Your task to perform on an android device: uninstall "Microsoft Outlook" Image 0: 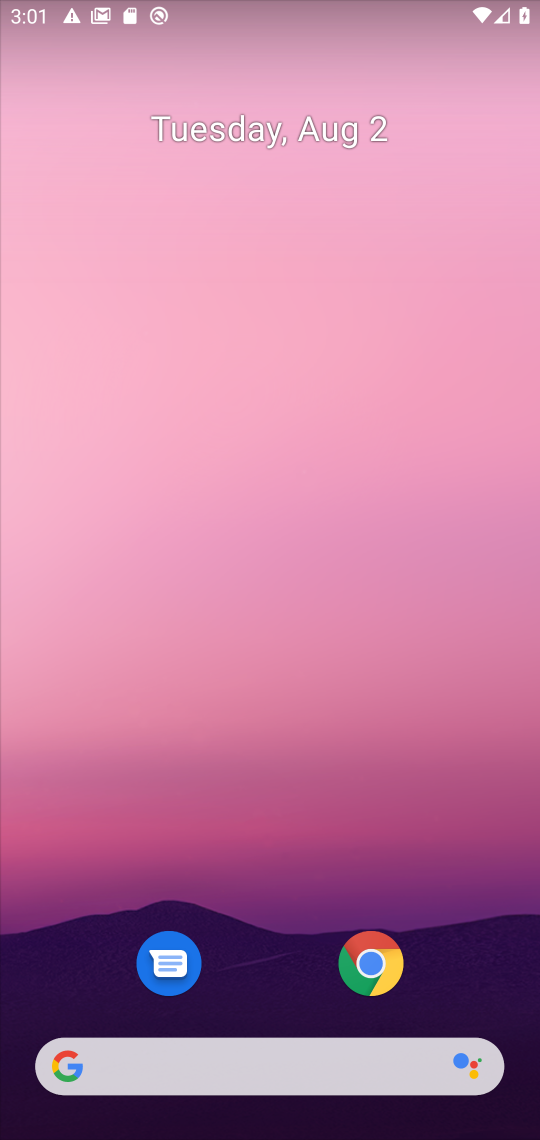
Step 0: drag from (226, 938) to (411, 51)
Your task to perform on an android device: uninstall "Microsoft Outlook" Image 1: 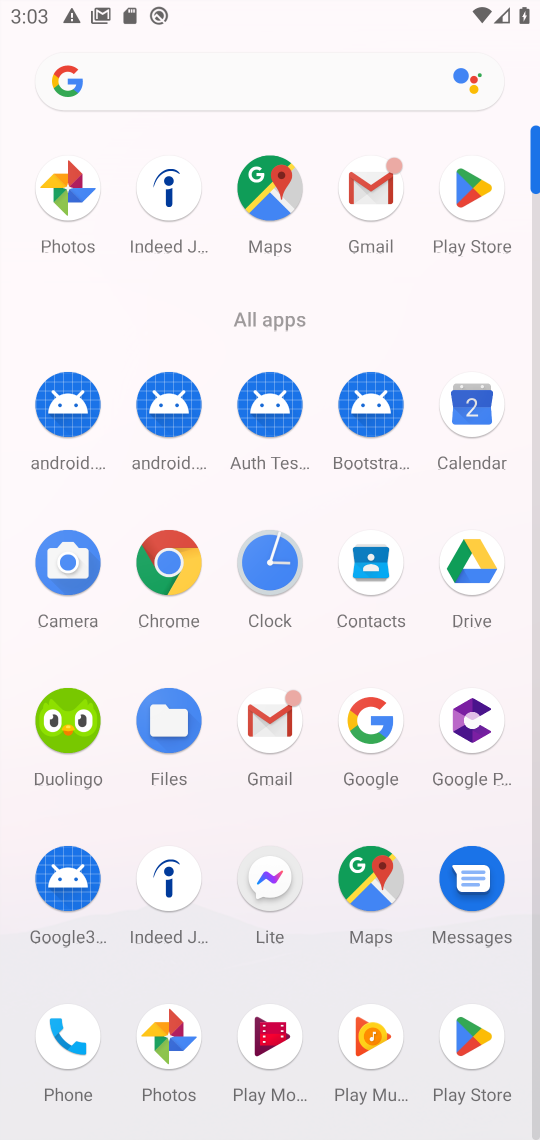
Step 1: click (459, 183)
Your task to perform on an android device: uninstall "Microsoft Outlook" Image 2: 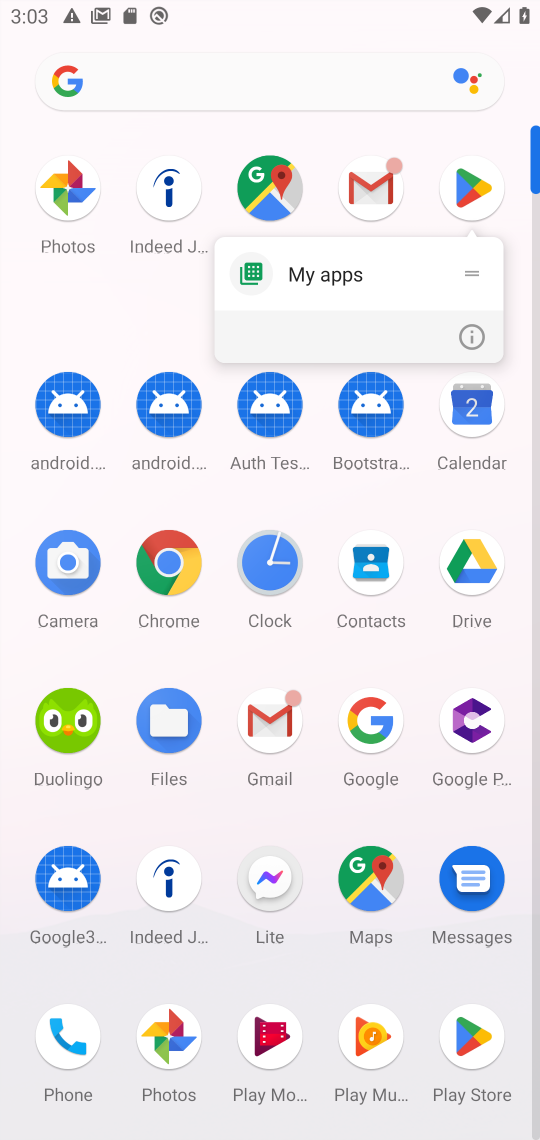
Step 2: click (460, 194)
Your task to perform on an android device: uninstall "Microsoft Outlook" Image 3: 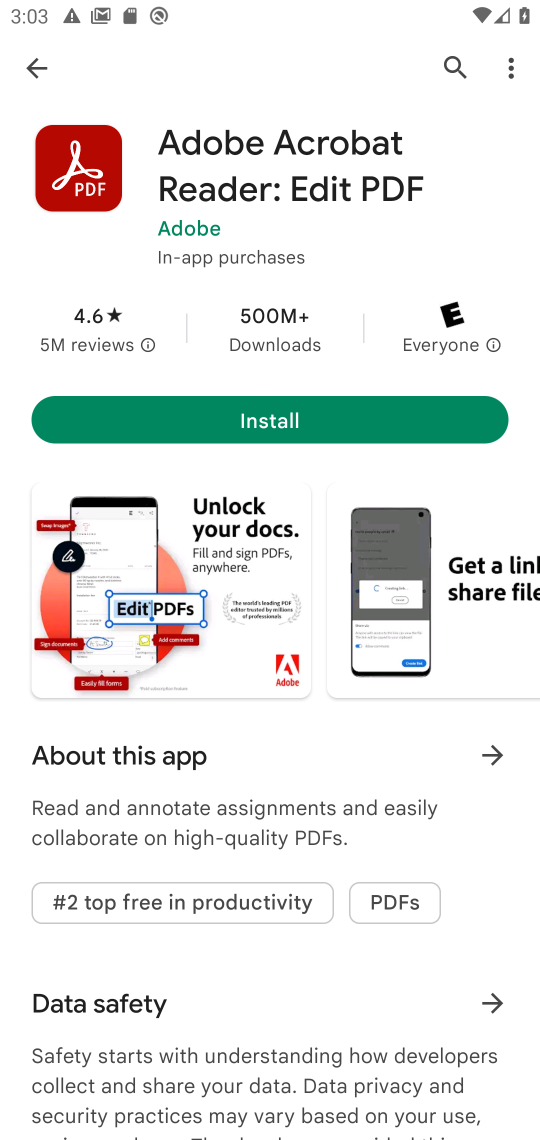
Step 3: click (444, 70)
Your task to perform on an android device: uninstall "Microsoft Outlook" Image 4: 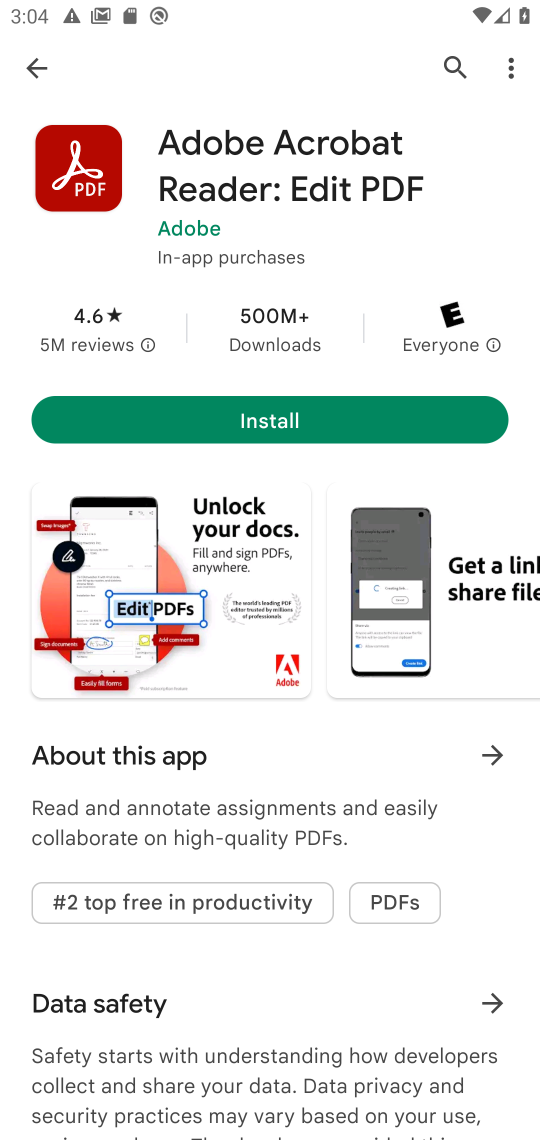
Step 4: type "Microsoft Outlook"
Your task to perform on an android device: uninstall "Microsoft Outlook" Image 5: 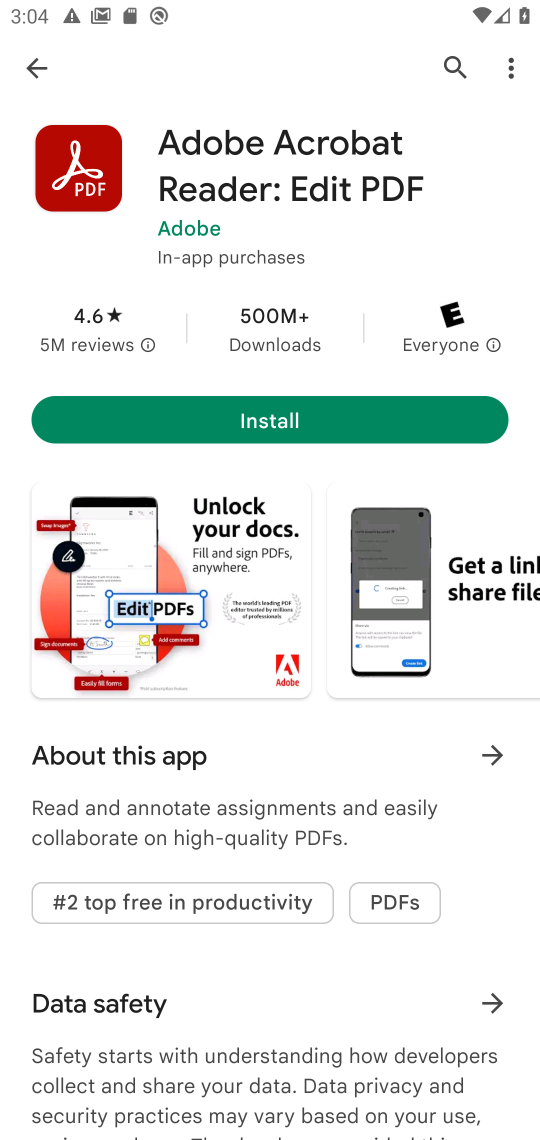
Step 5: click (448, 60)
Your task to perform on an android device: uninstall "Microsoft Outlook" Image 6: 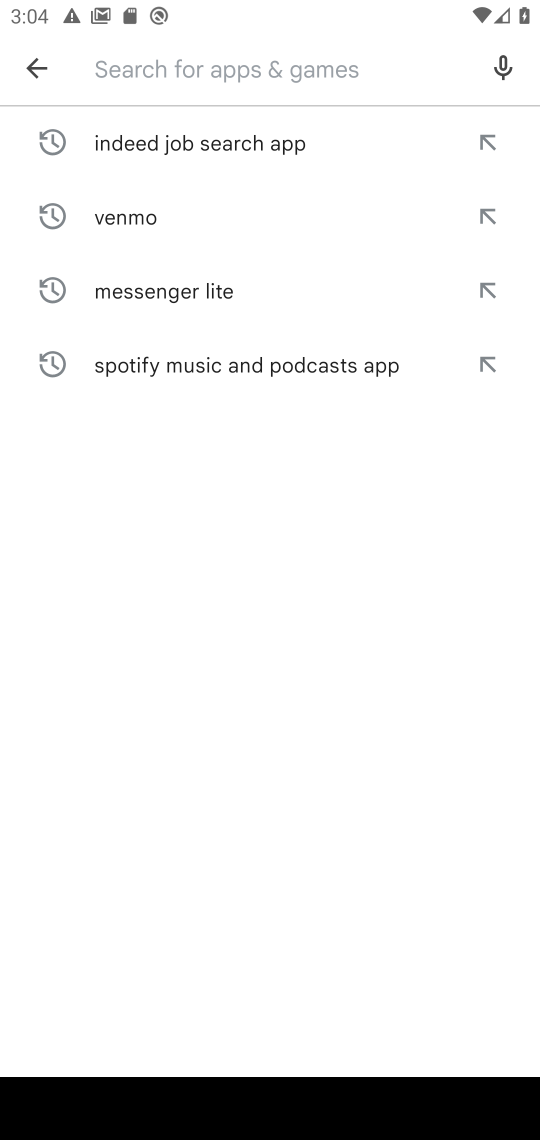
Step 6: type "Microsoft Outlook"
Your task to perform on an android device: uninstall "Microsoft Outlook" Image 7: 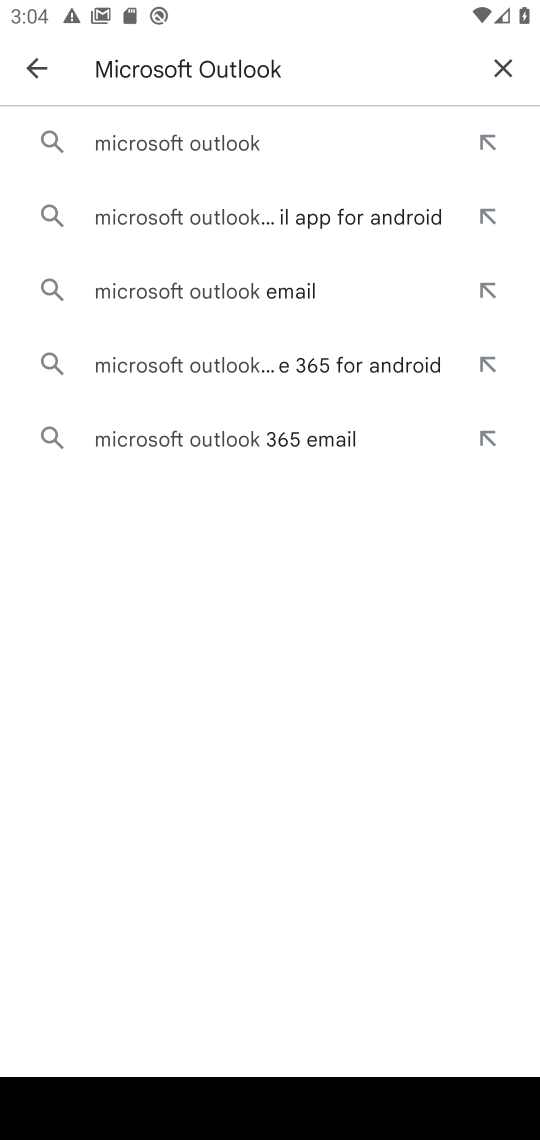
Step 7: click (253, 134)
Your task to perform on an android device: uninstall "Microsoft Outlook" Image 8: 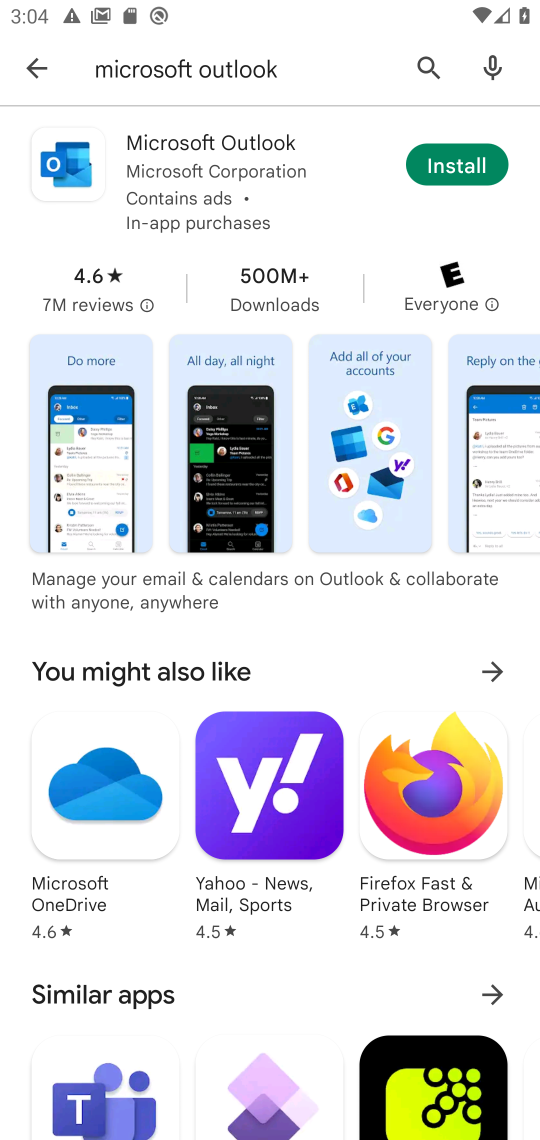
Step 8: task complete